Your task to perform on an android device: Open sound settings Image 0: 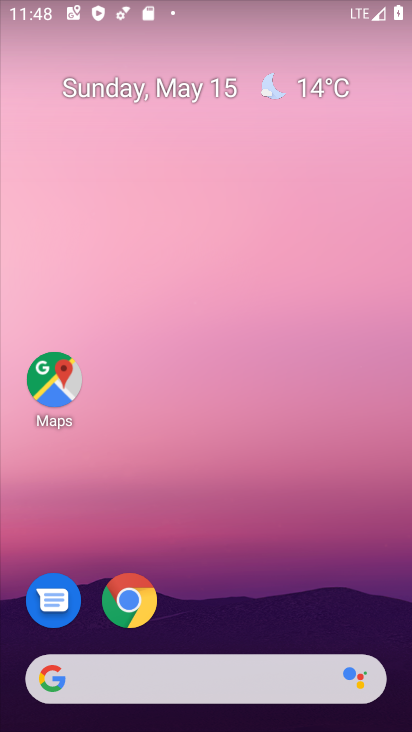
Step 0: drag from (401, 637) to (340, 68)
Your task to perform on an android device: Open sound settings Image 1: 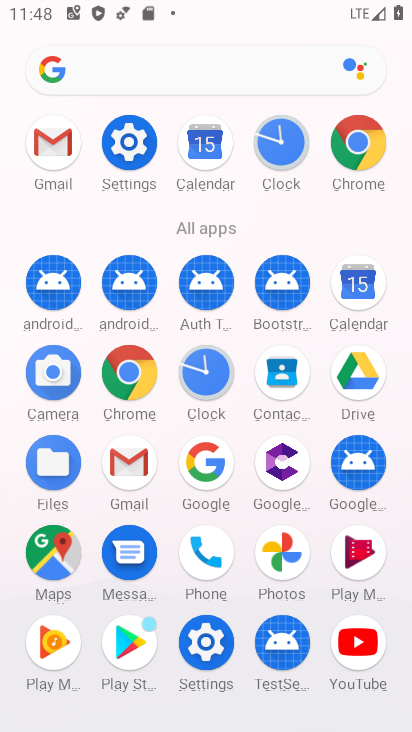
Step 1: click (204, 641)
Your task to perform on an android device: Open sound settings Image 2: 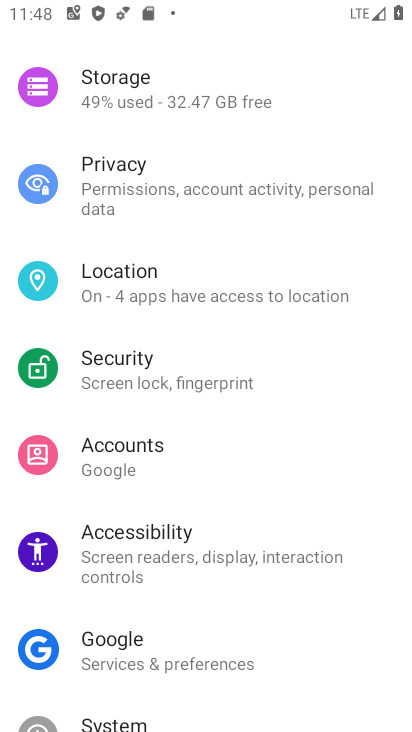
Step 2: drag from (373, 147) to (348, 430)
Your task to perform on an android device: Open sound settings Image 3: 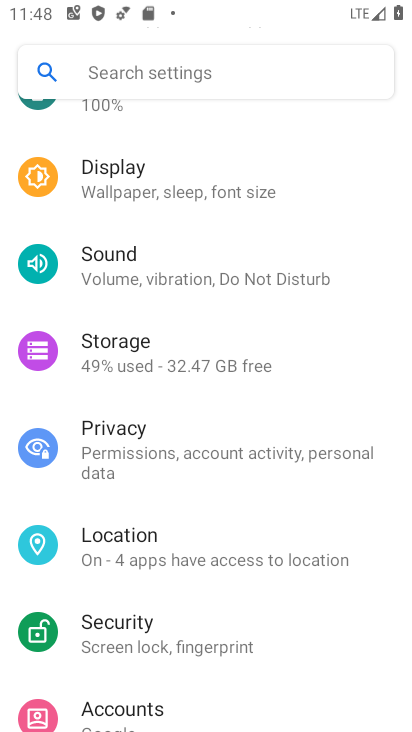
Step 3: click (110, 259)
Your task to perform on an android device: Open sound settings Image 4: 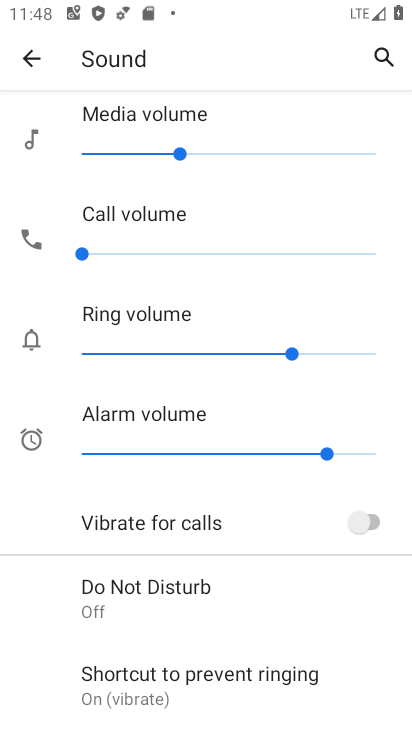
Step 4: drag from (318, 560) to (347, 222)
Your task to perform on an android device: Open sound settings Image 5: 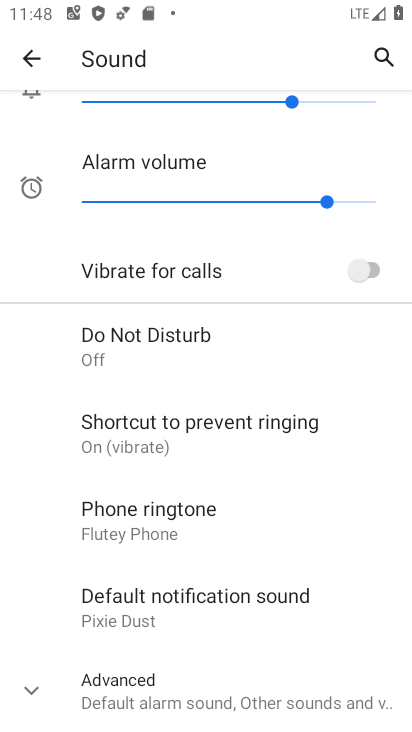
Step 5: click (28, 688)
Your task to perform on an android device: Open sound settings Image 6: 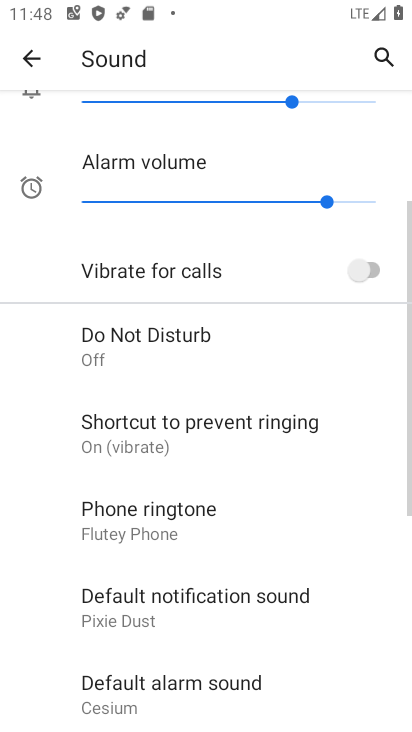
Step 6: task complete